Your task to perform on an android device: Show me popular games on the Play Store Image 0: 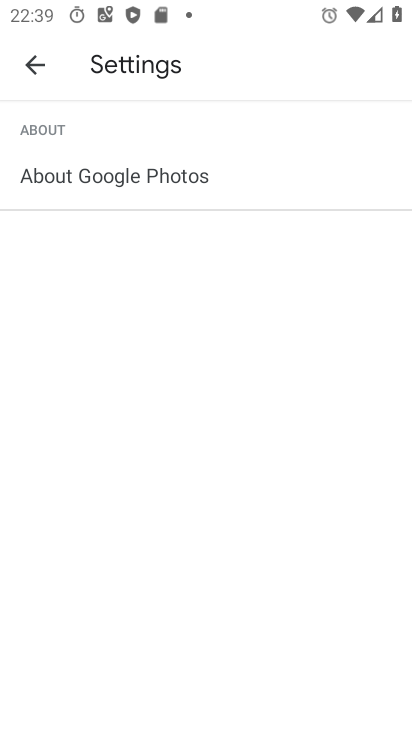
Step 0: press home button
Your task to perform on an android device: Show me popular games on the Play Store Image 1: 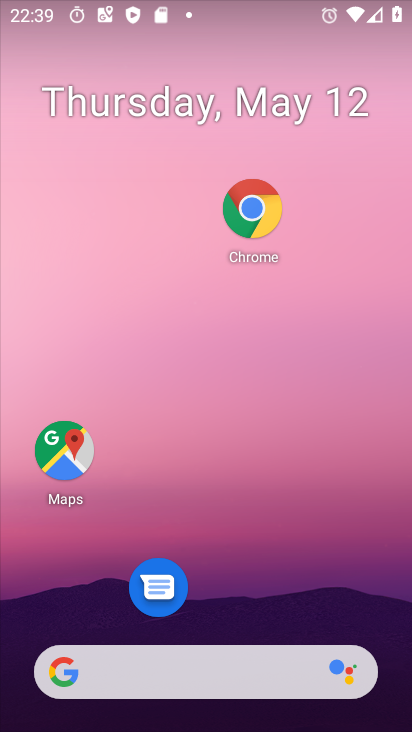
Step 1: drag from (253, 611) to (264, 185)
Your task to perform on an android device: Show me popular games on the Play Store Image 2: 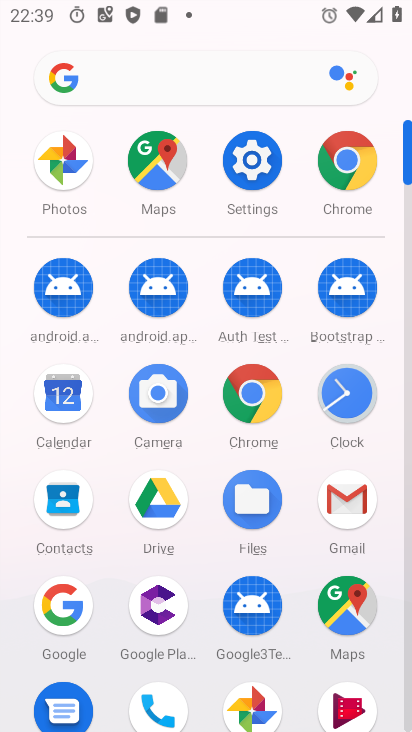
Step 2: drag from (183, 569) to (181, 218)
Your task to perform on an android device: Show me popular games on the Play Store Image 3: 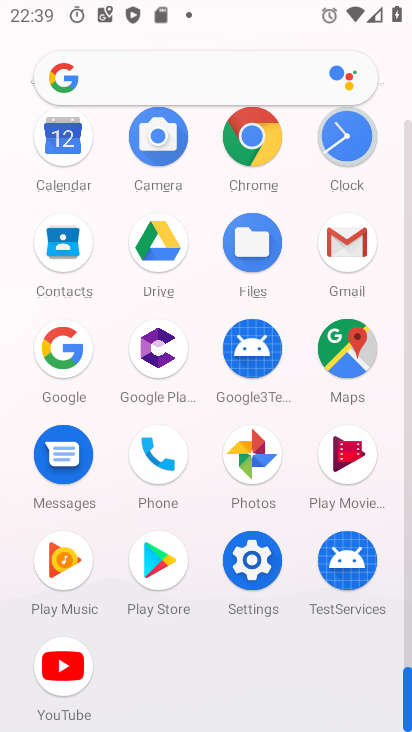
Step 3: click (160, 548)
Your task to perform on an android device: Show me popular games on the Play Store Image 4: 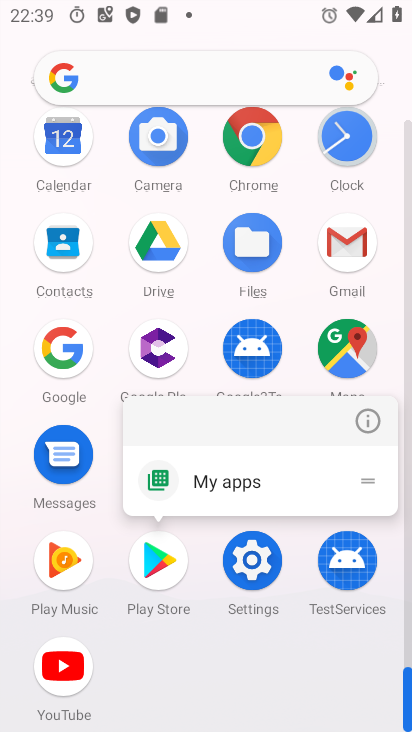
Step 4: click (138, 557)
Your task to perform on an android device: Show me popular games on the Play Store Image 5: 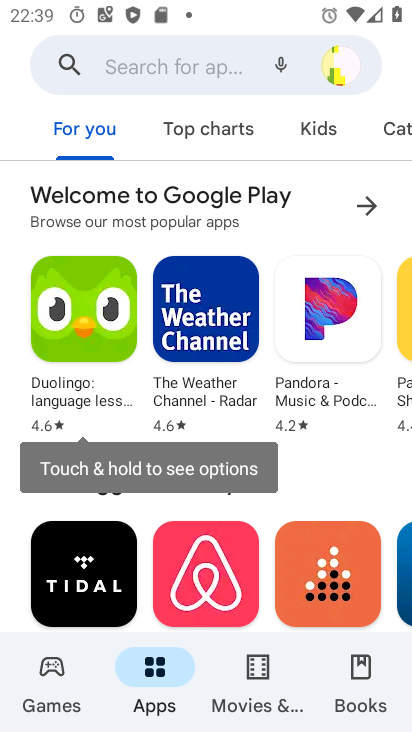
Step 5: click (34, 677)
Your task to perform on an android device: Show me popular games on the Play Store Image 6: 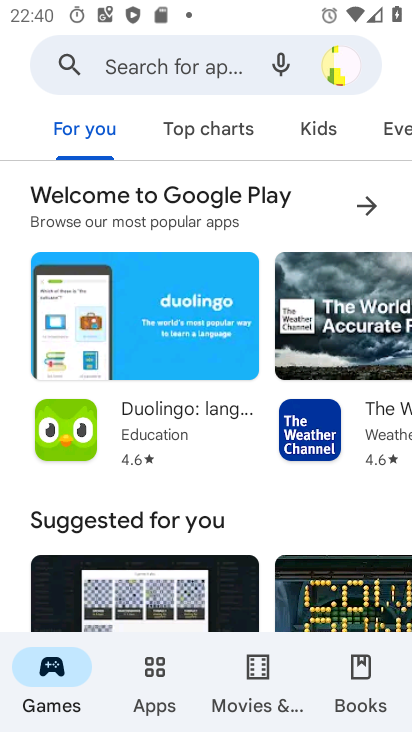
Step 6: task complete